Your task to perform on an android device: find photos in the google photos app Image 0: 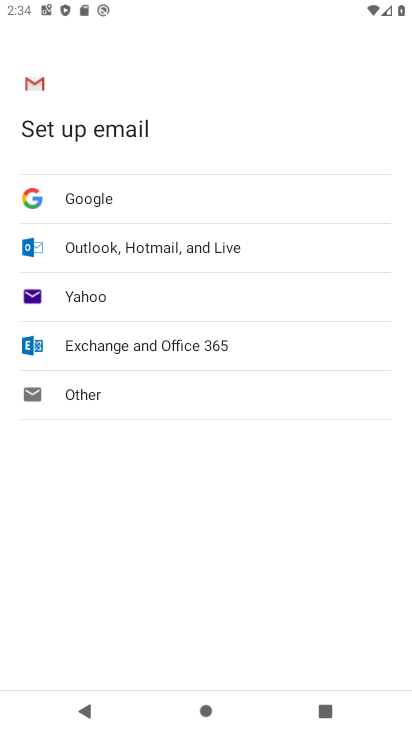
Step 0: press home button
Your task to perform on an android device: find photos in the google photos app Image 1: 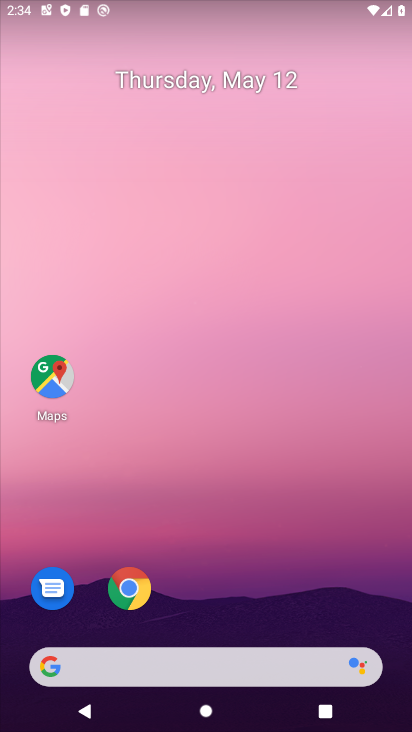
Step 1: drag from (323, 478) to (224, 100)
Your task to perform on an android device: find photos in the google photos app Image 2: 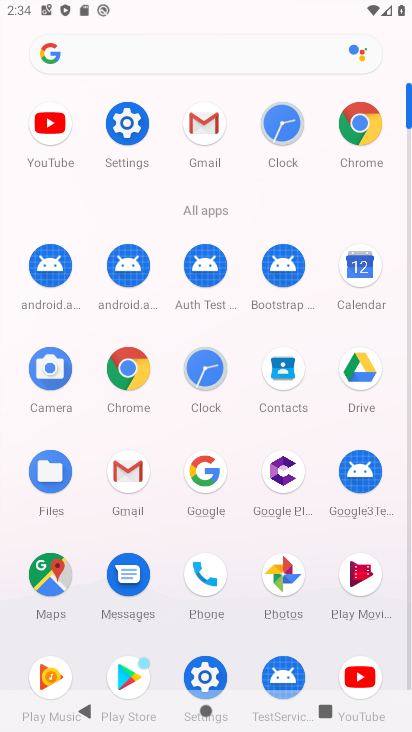
Step 2: click (284, 575)
Your task to perform on an android device: find photos in the google photos app Image 3: 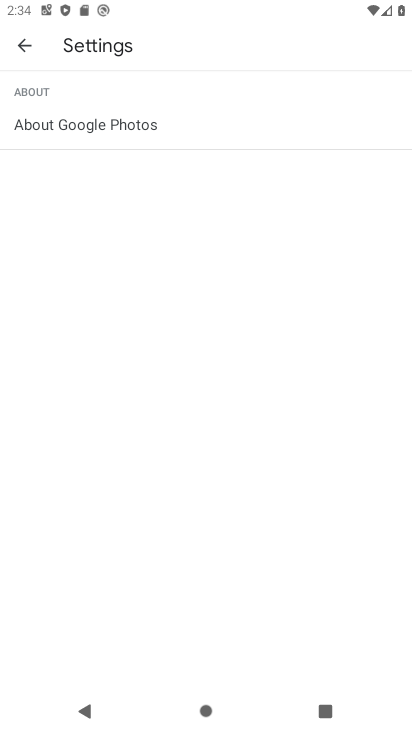
Step 3: click (29, 40)
Your task to perform on an android device: find photos in the google photos app Image 4: 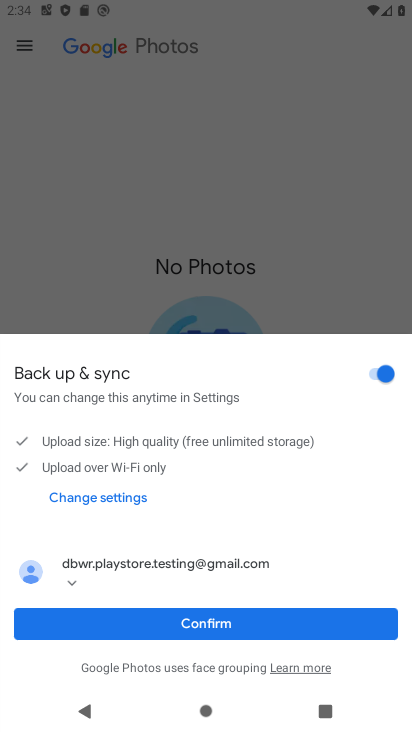
Step 4: click (222, 627)
Your task to perform on an android device: find photos in the google photos app Image 5: 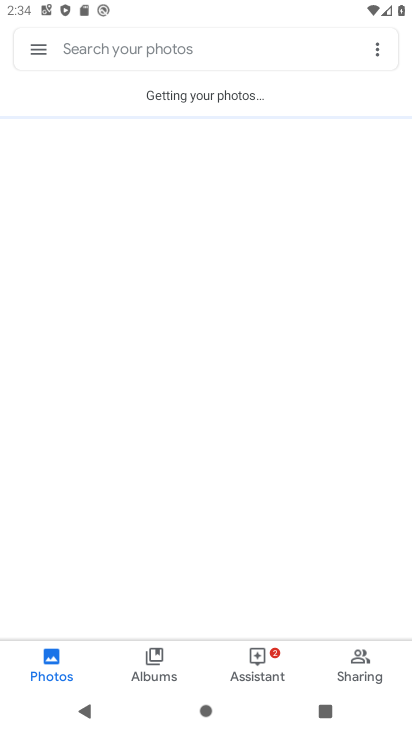
Step 5: click (78, 651)
Your task to perform on an android device: find photos in the google photos app Image 6: 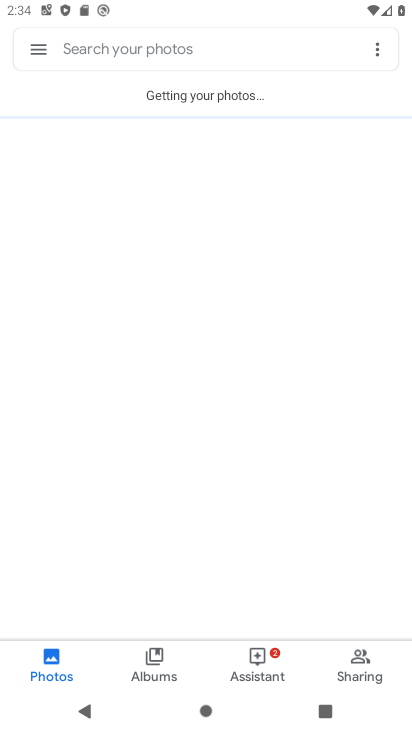
Step 6: click (74, 653)
Your task to perform on an android device: find photos in the google photos app Image 7: 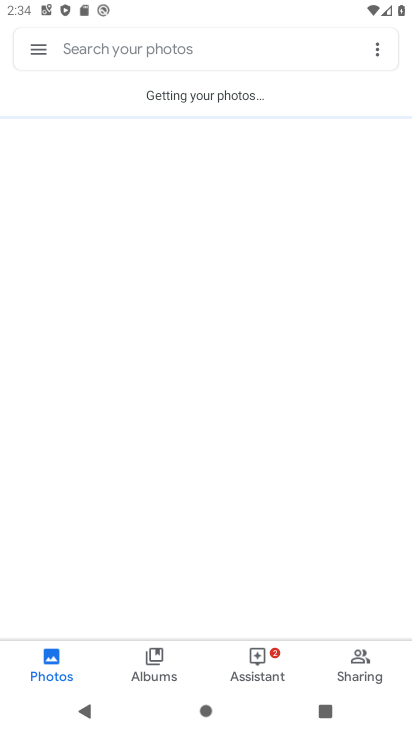
Step 7: task complete